Your task to perform on an android device: Turn on the flashlight Image 0: 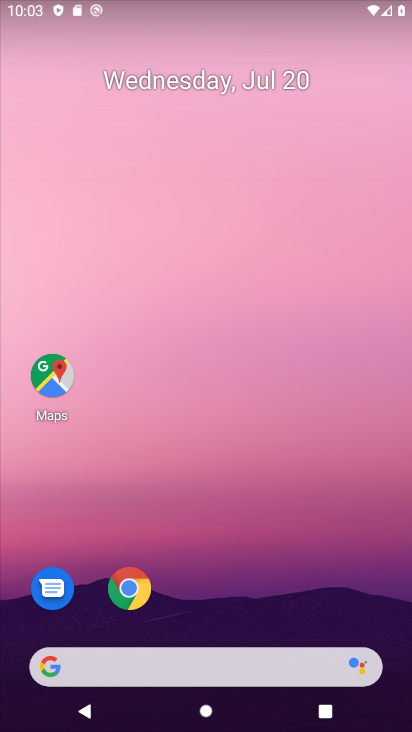
Step 0: drag from (197, 602) to (189, 190)
Your task to perform on an android device: Turn on the flashlight Image 1: 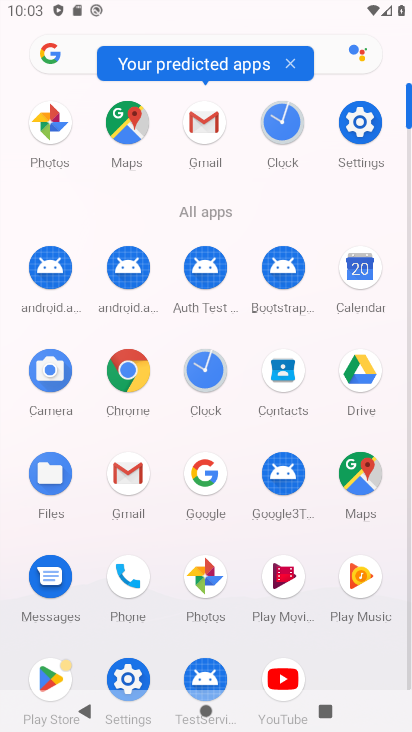
Step 1: click (357, 139)
Your task to perform on an android device: Turn on the flashlight Image 2: 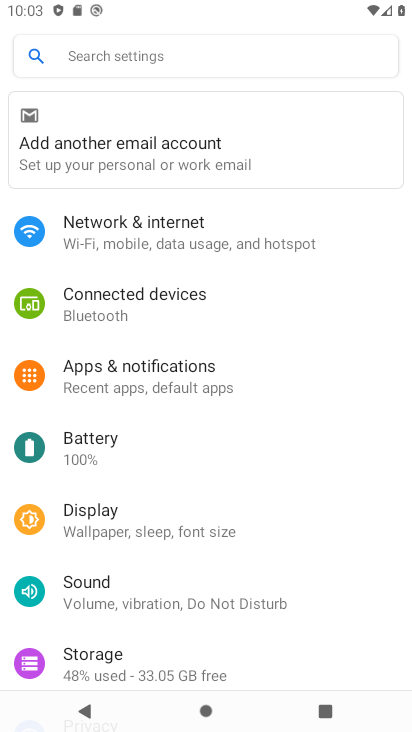
Step 2: click (164, 56)
Your task to perform on an android device: Turn on the flashlight Image 3: 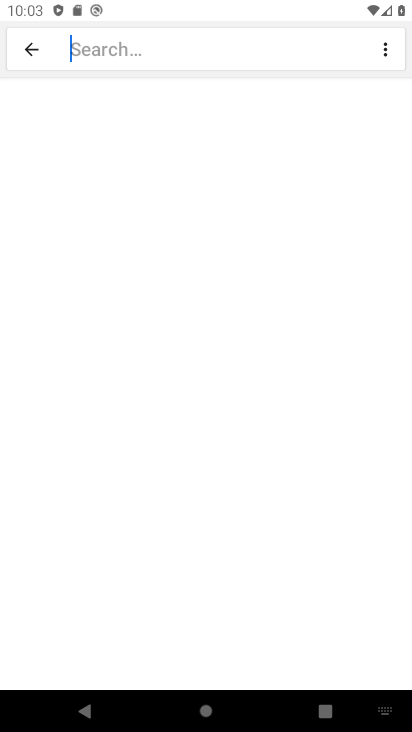
Step 3: type "flashlight"
Your task to perform on an android device: Turn on the flashlight Image 4: 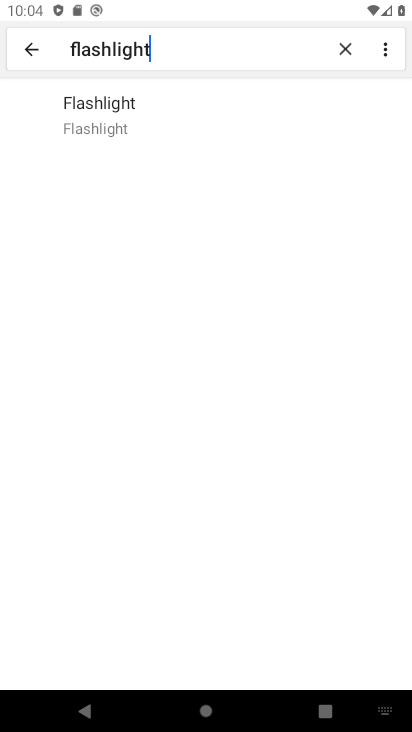
Step 4: click (127, 133)
Your task to perform on an android device: Turn on the flashlight Image 5: 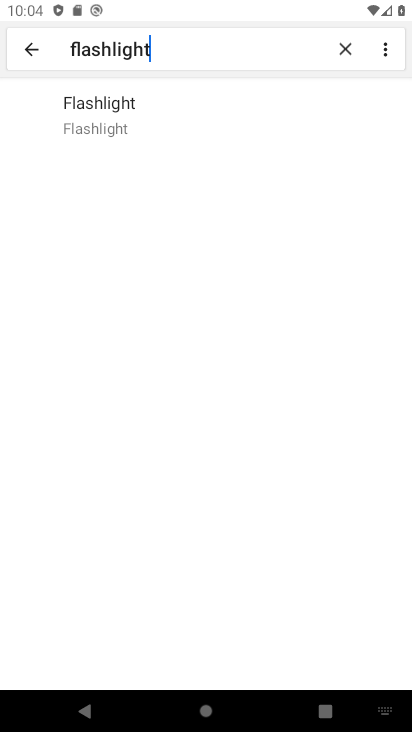
Step 5: click (112, 127)
Your task to perform on an android device: Turn on the flashlight Image 6: 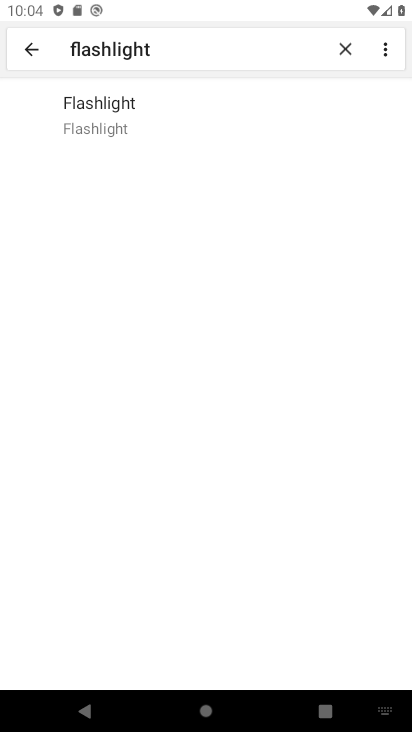
Step 6: task complete